Your task to perform on an android device: turn pop-ups on in chrome Image 0: 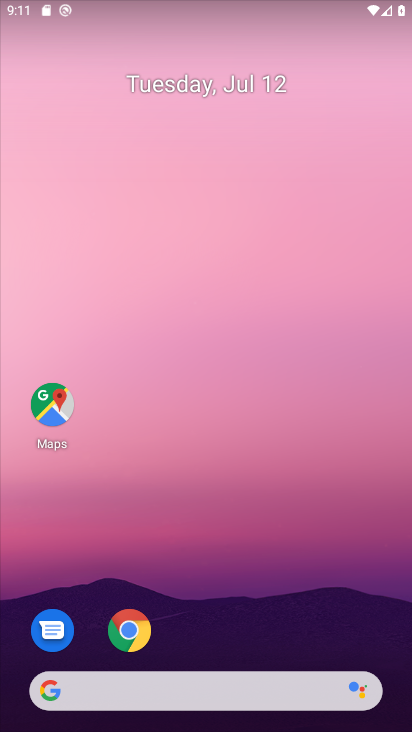
Step 0: click (127, 630)
Your task to perform on an android device: turn pop-ups on in chrome Image 1: 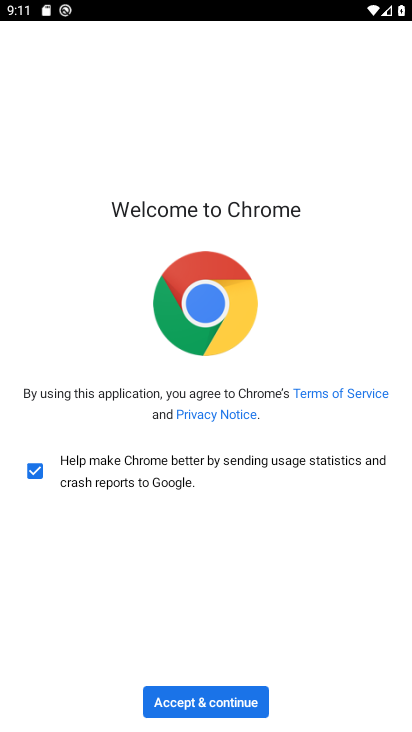
Step 1: click (252, 697)
Your task to perform on an android device: turn pop-ups on in chrome Image 2: 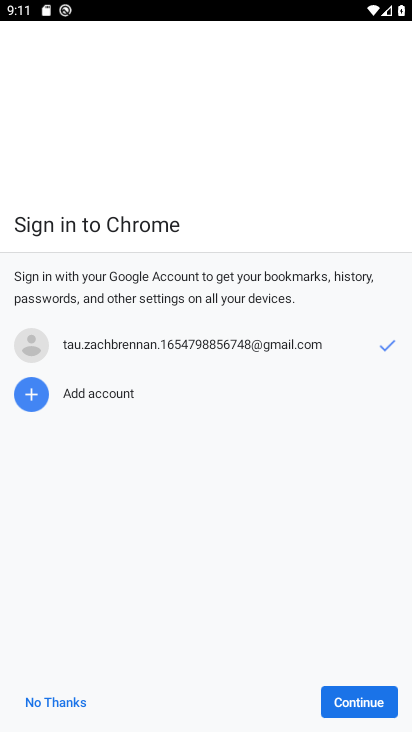
Step 2: click (339, 706)
Your task to perform on an android device: turn pop-ups on in chrome Image 3: 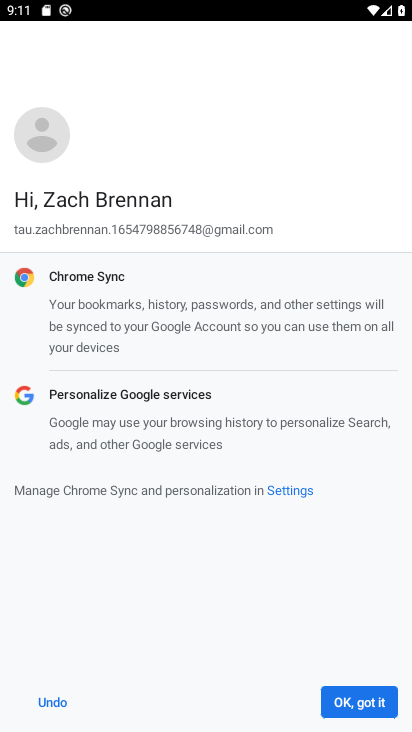
Step 3: click (356, 706)
Your task to perform on an android device: turn pop-ups on in chrome Image 4: 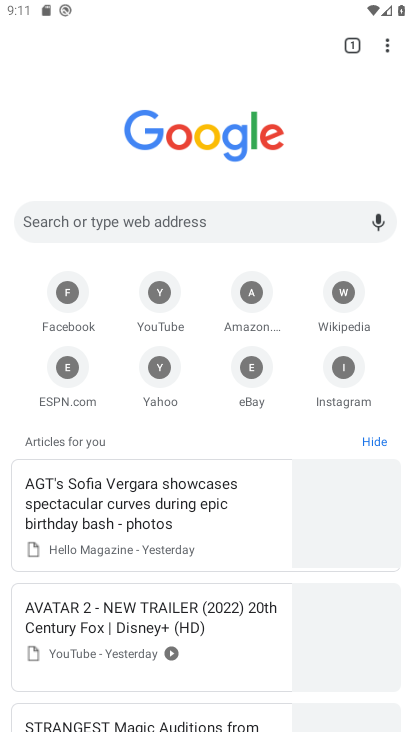
Step 4: drag from (396, 54) to (293, 376)
Your task to perform on an android device: turn pop-ups on in chrome Image 5: 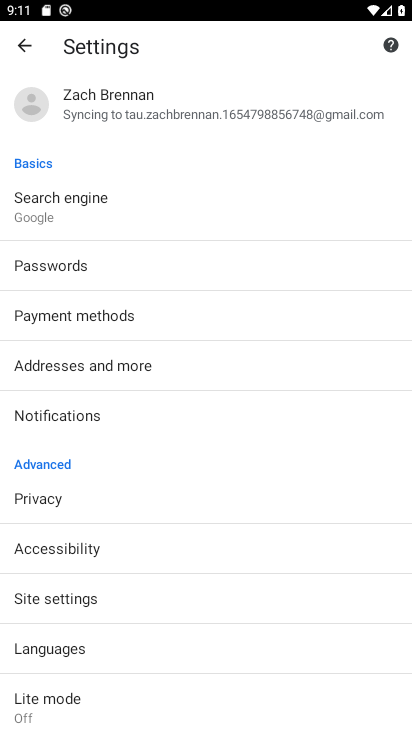
Step 5: click (105, 600)
Your task to perform on an android device: turn pop-ups on in chrome Image 6: 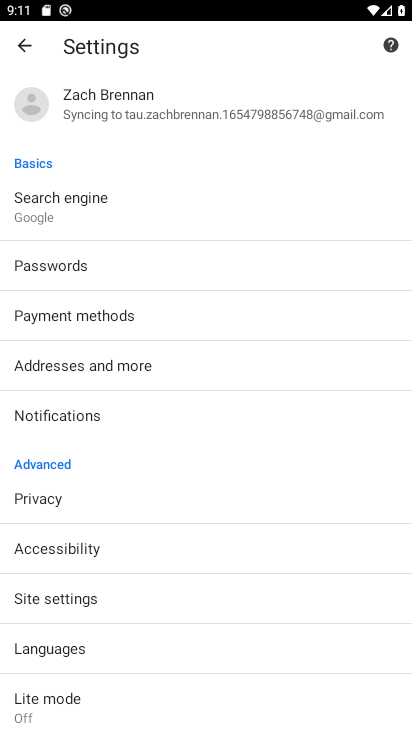
Step 6: drag from (102, 650) to (217, 368)
Your task to perform on an android device: turn pop-ups on in chrome Image 7: 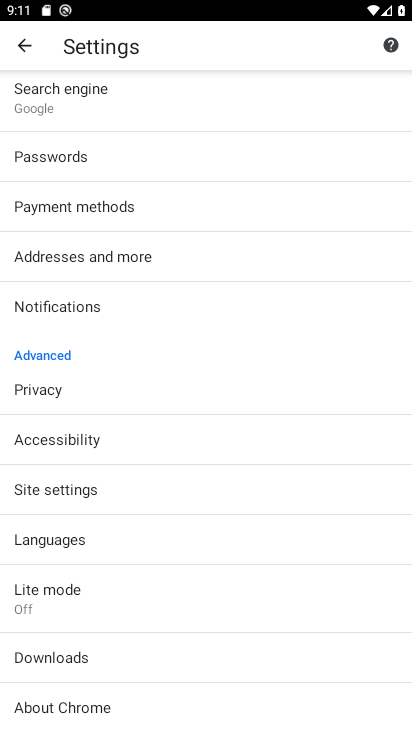
Step 7: click (115, 501)
Your task to perform on an android device: turn pop-ups on in chrome Image 8: 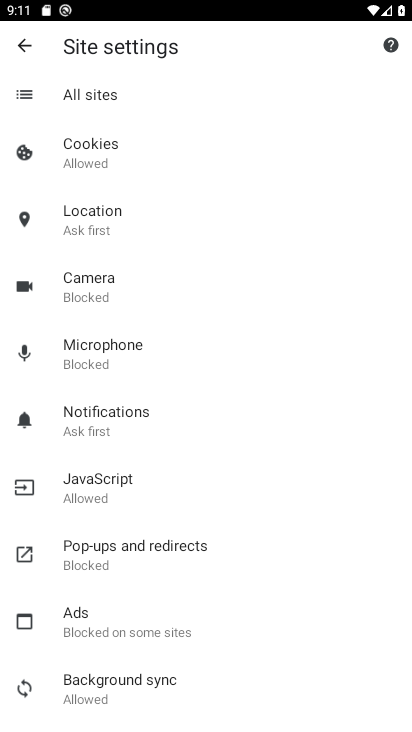
Step 8: click (137, 551)
Your task to perform on an android device: turn pop-ups on in chrome Image 9: 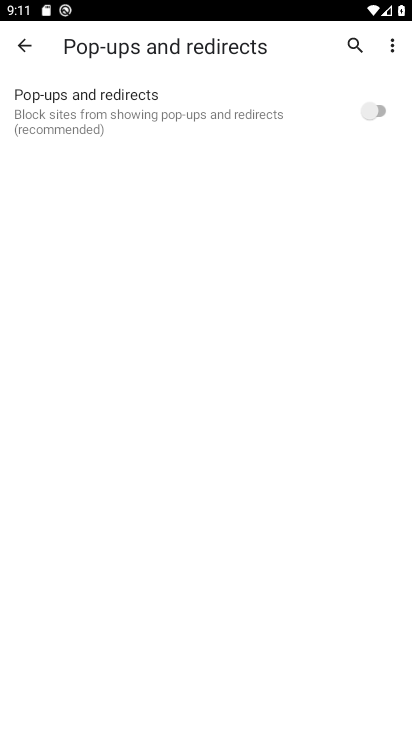
Step 9: click (397, 115)
Your task to perform on an android device: turn pop-ups on in chrome Image 10: 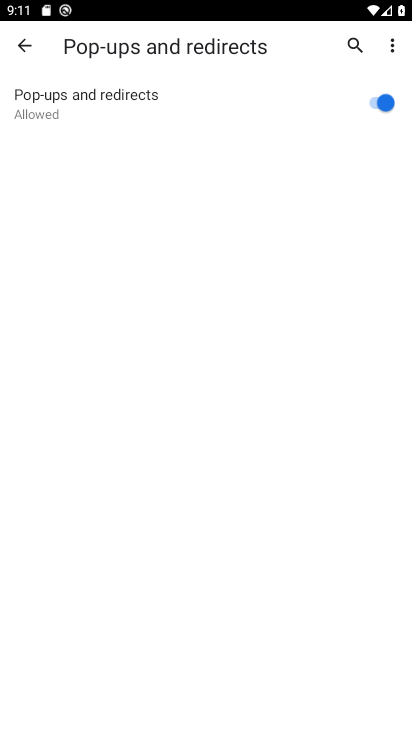
Step 10: task complete